Your task to perform on an android device: toggle pop-ups in chrome Image 0: 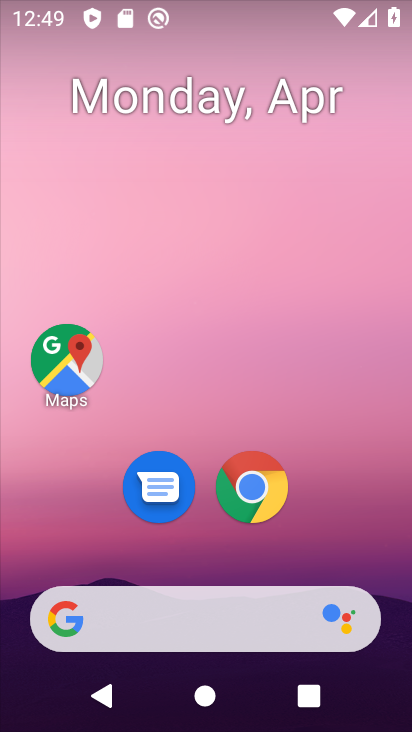
Step 0: drag from (390, 605) to (254, 72)
Your task to perform on an android device: toggle pop-ups in chrome Image 1: 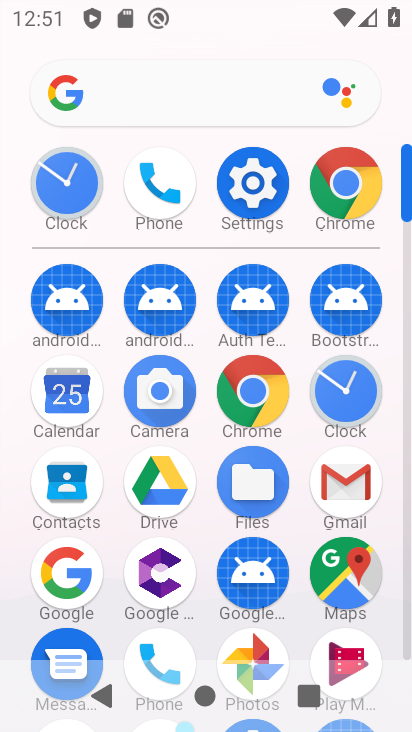
Step 1: click (232, 384)
Your task to perform on an android device: toggle pop-ups in chrome Image 2: 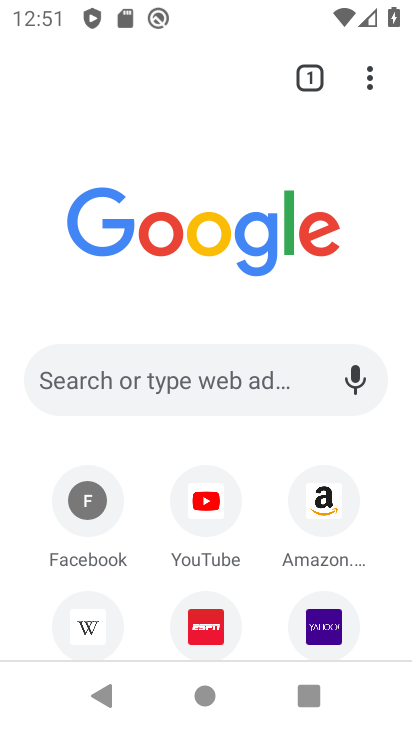
Step 2: click (371, 79)
Your task to perform on an android device: toggle pop-ups in chrome Image 3: 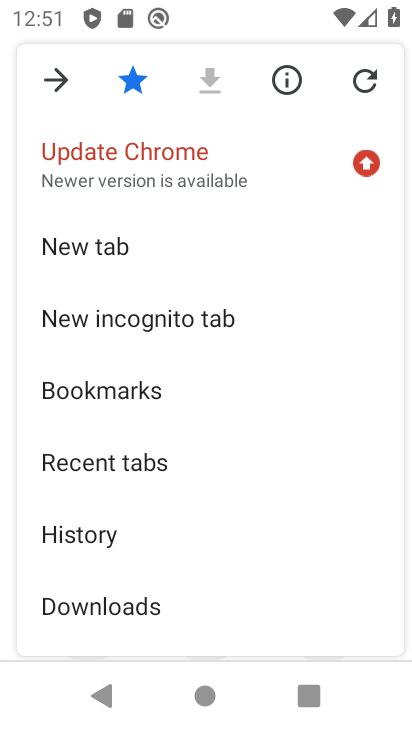
Step 3: drag from (189, 551) to (236, 229)
Your task to perform on an android device: toggle pop-ups in chrome Image 4: 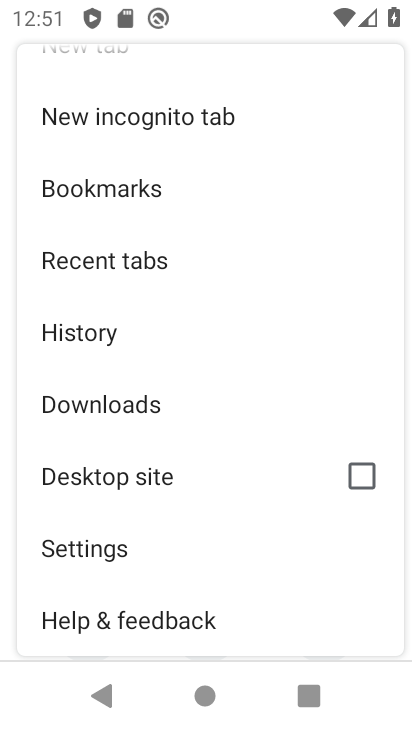
Step 4: click (164, 559)
Your task to perform on an android device: toggle pop-ups in chrome Image 5: 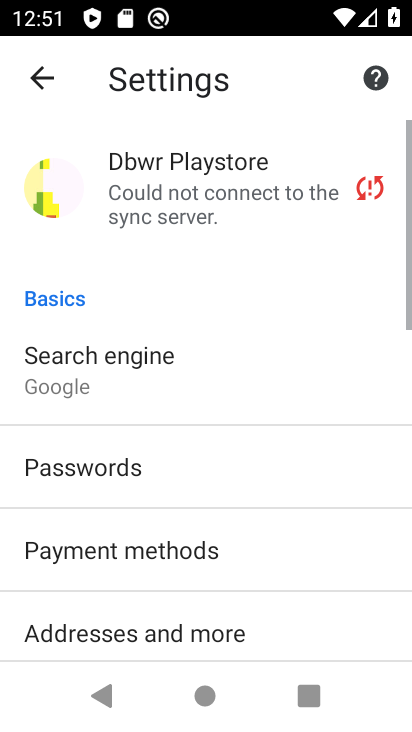
Step 5: drag from (142, 580) to (182, 255)
Your task to perform on an android device: toggle pop-ups in chrome Image 6: 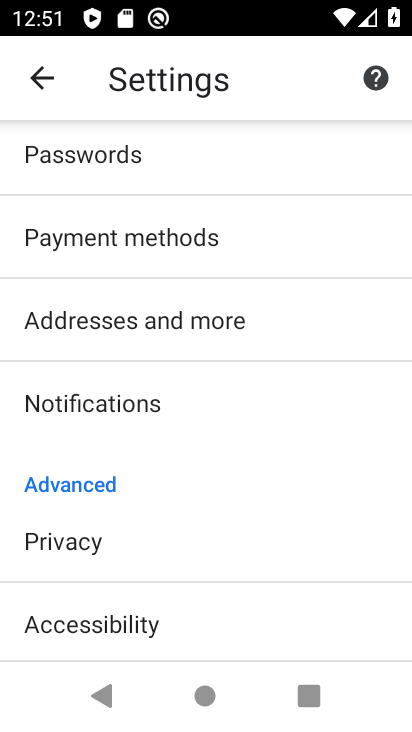
Step 6: drag from (164, 597) to (167, 229)
Your task to perform on an android device: toggle pop-ups in chrome Image 7: 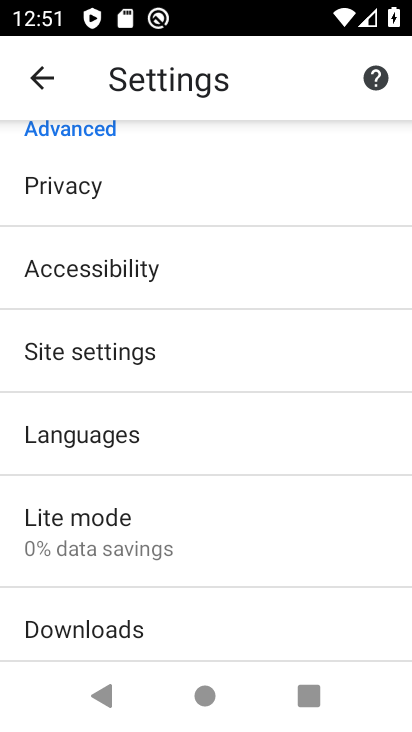
Step 7: click (142, 353)
Your task to perform on an android device: toggle pop-ups in chrome Image 8: 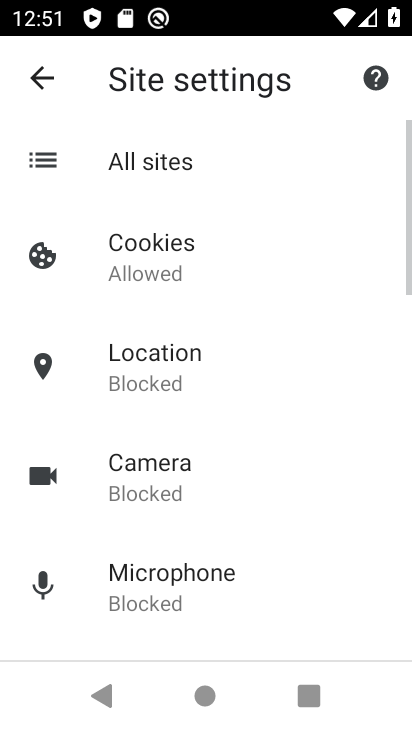
Step 8: drag from (107, 610) to (229, 175)
Your task to perform on an android device: toggle pop-ups in chrome Image 9: 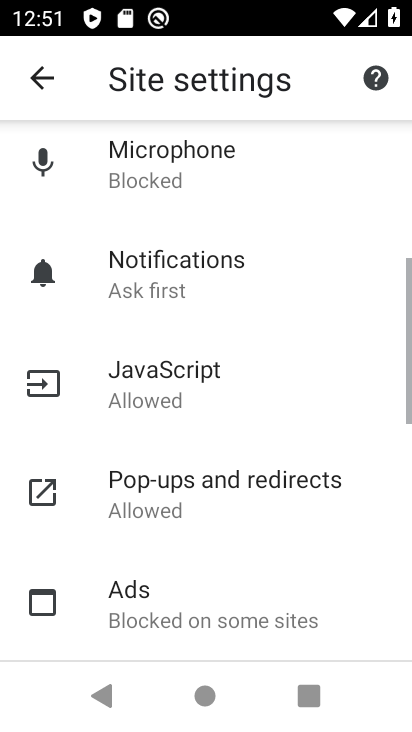
Step 9: click (209, 534)
Your task to perform on an android device: toggle pop-ups in chrome Image 10: 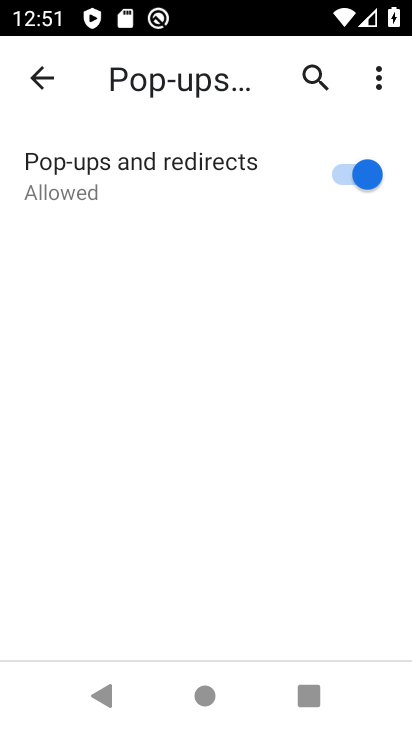
Step 10: click (337, 198)
Your task to perform on an android device: toggle pop-ups in chrome Image 11: 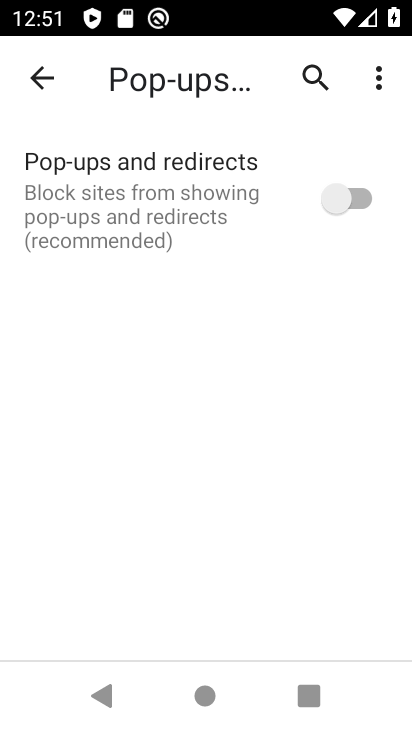
Step 11: task complete